Your task to perform on an android device: turn vacation reply on in the gmail app Image 0: 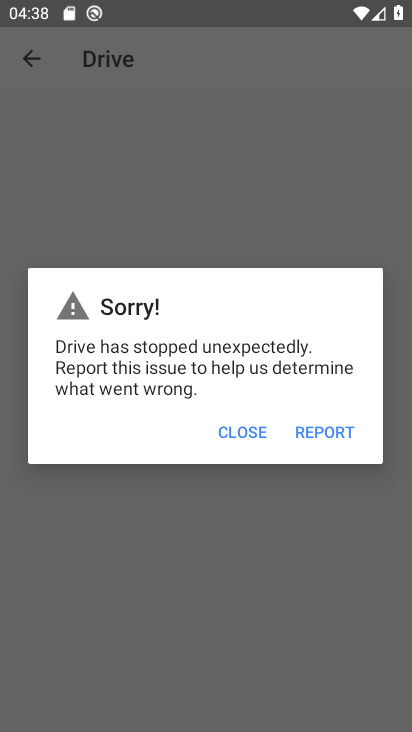
Step 0: press home button
Your task to perform on an android device: turn vacation reply on in the gmail app Image 1: 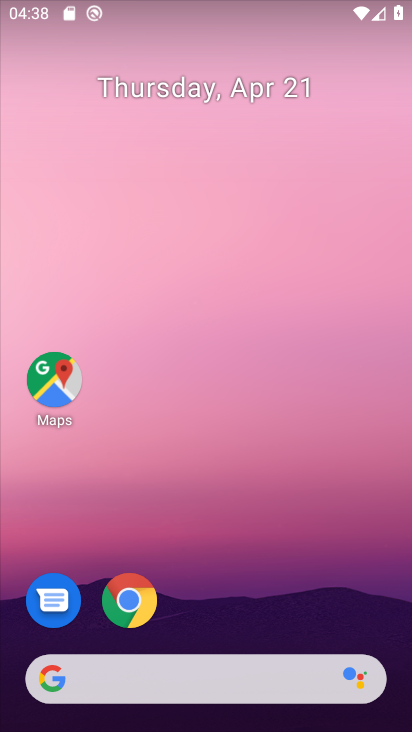
Step 1: drag from (386, 623) to (368, 6)
Your task to perform on an android device: turn vacation reply on in the gmail app Image 2: 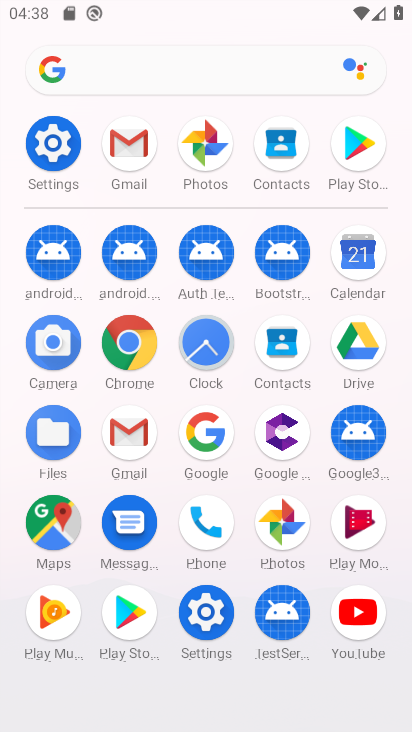
Step 2: click (125, 147)
Your task to perform on an android device: turn vacation reply on in the gmail app Image 3: 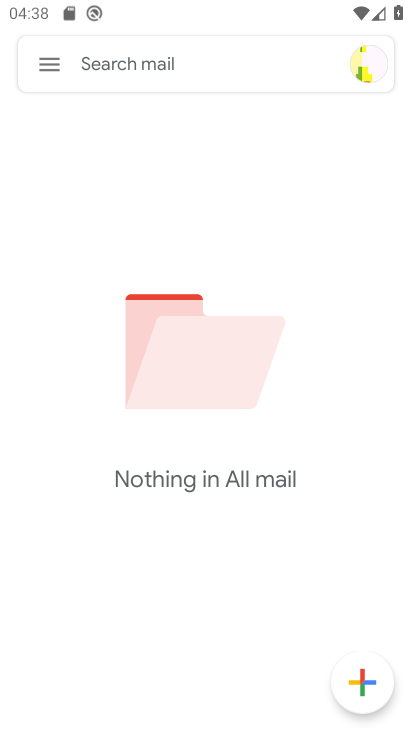
Step 3: click (46, 70)
Your task to perform on an android device: turn vacation reply on in the gmail app Image 4: 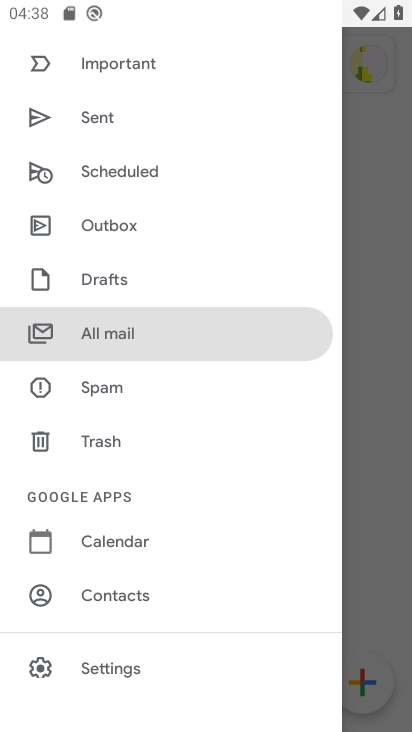
Step 4: drag from (197, 519) to (187, 171)
Your task to perform on an android device: turn vacation reply on in the gmail app Image 5: 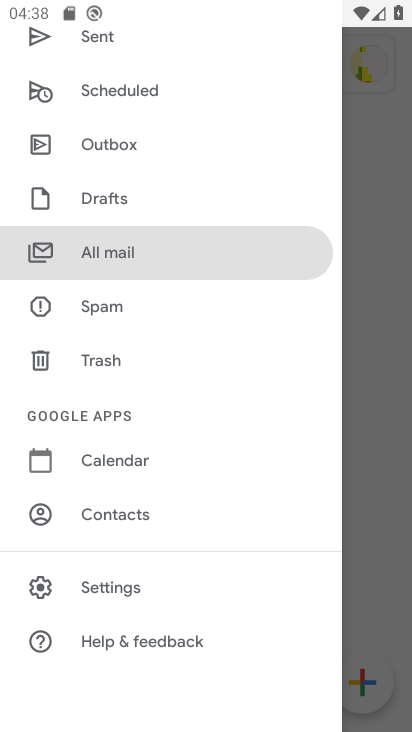
Step 5: click (108, 581)
Your task to perform on an android device: turn vacation reply on in the gmail app Image 6: 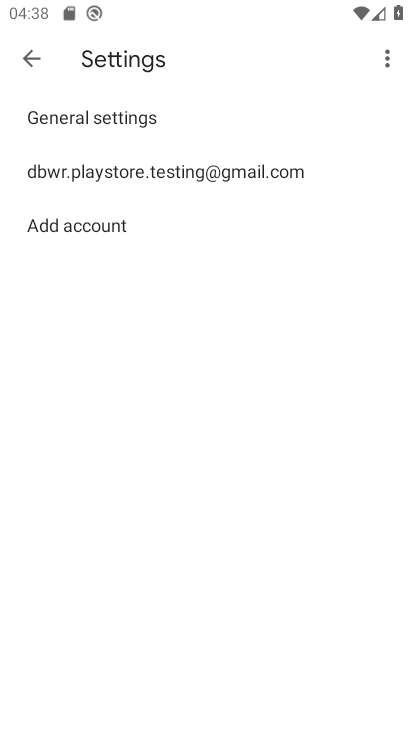
Step 6: click (89, 171)
Your task to perform on an android device: turn vacation reply on in the gmail app Image 7: 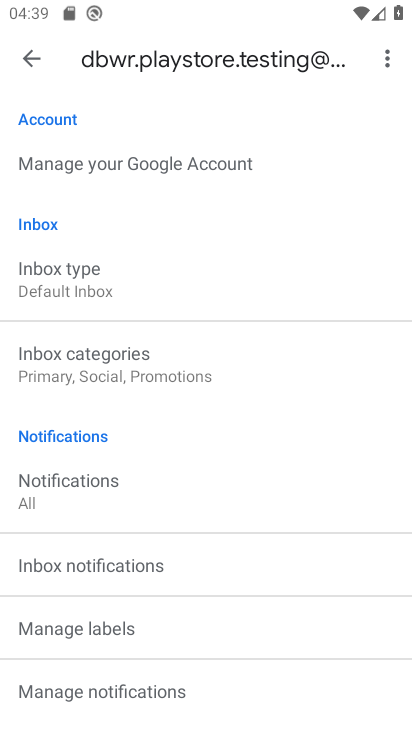
Step 7: drag from (193, 576) to (187, 220)
Your task to perform on an android device: turn vacation reply on in the gmail app Image 8: 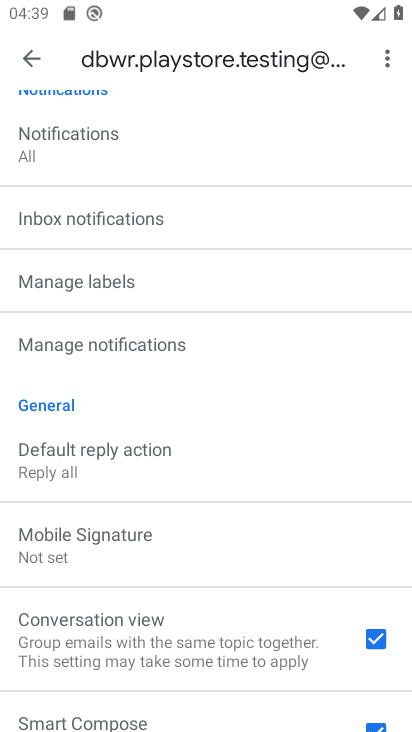
Step 8: drag from (155, 596) to (155, 230)
Your task to perform on an android device: turn vacation reply on in the gmail app Image 9: 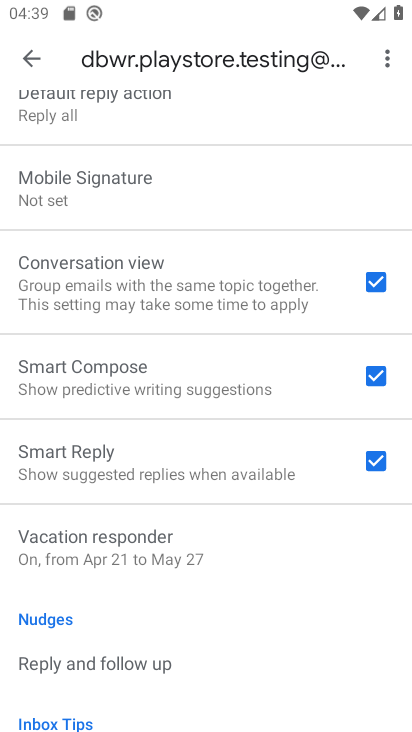
Step 9: click (103, 545)
Your task to perform on an android device: turn vacation reply on in the gmail app Image 10: 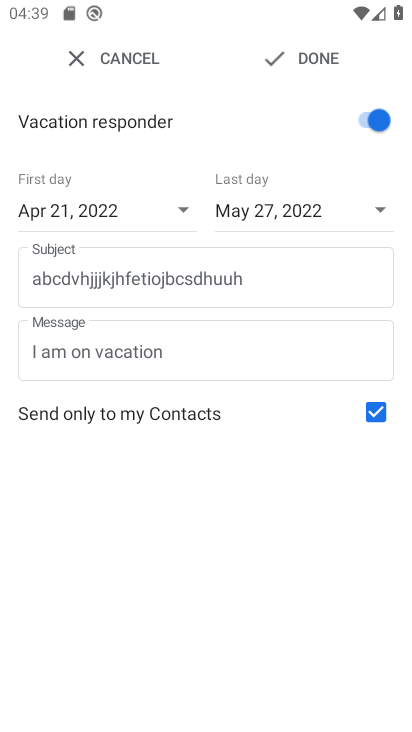
Step 10: click (309, 60)
Your task to perform on an android device: turn vacation reply on in the gmail app Image 11: 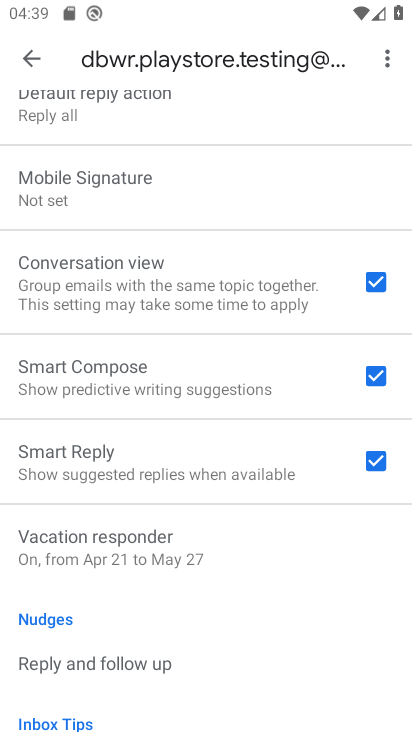
Step 11: task complete